Your task to perform on an android device: stop showing notifications on the lock screen Image 0: 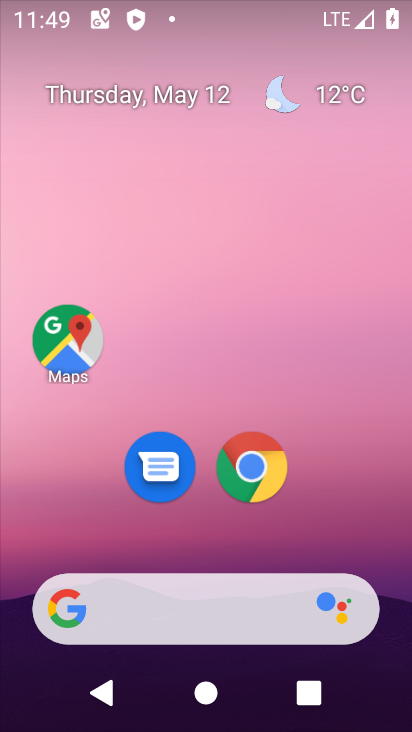
Step 0: drag from (323, 364) to (278, 5)
Your task to perform on an android device: stop showing notifications on the lock screen Image 1: 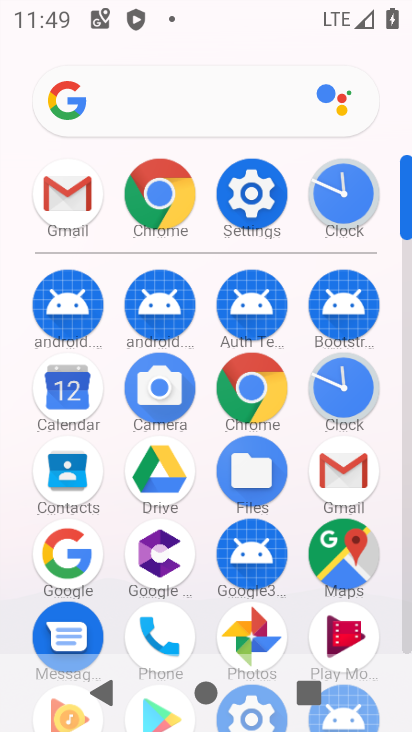
Step 1: drag from (15, 568) to (34, 308)
Your task to perform on an android device: stop showing notifications on the lock screen Image 2: 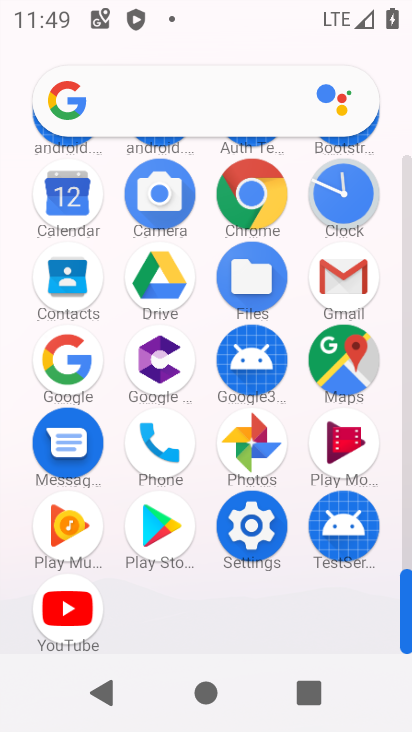
Step 2: click (251, 521)
Your task to perform on an android device: stop showing notifications on the lock screen Image 3: 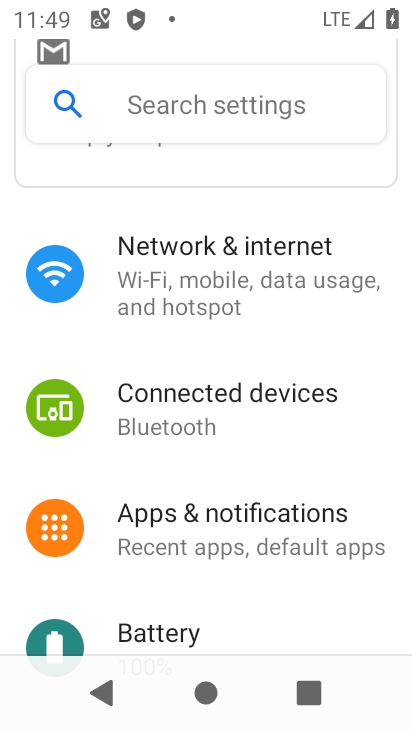
Step 3: drag from (249, 502) to (286, 231)
Your task to perform on an android device: stop showing notifications on the lock screen Image 4: 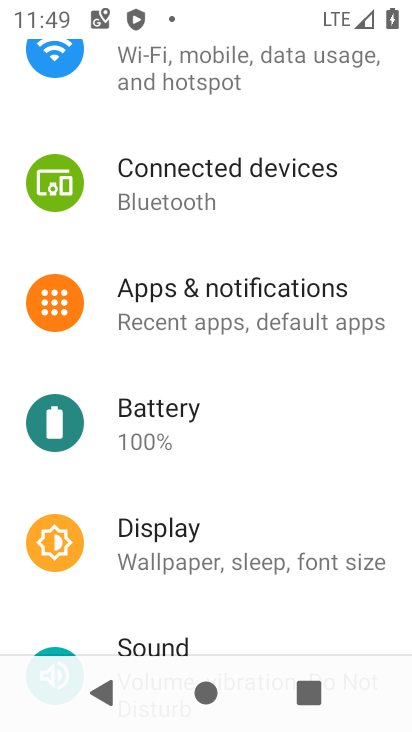
Step 4: drag from (237, 574) to (263, 208)
Your task to perform on an android device: stop showing notifications on the lock screen Image 5: 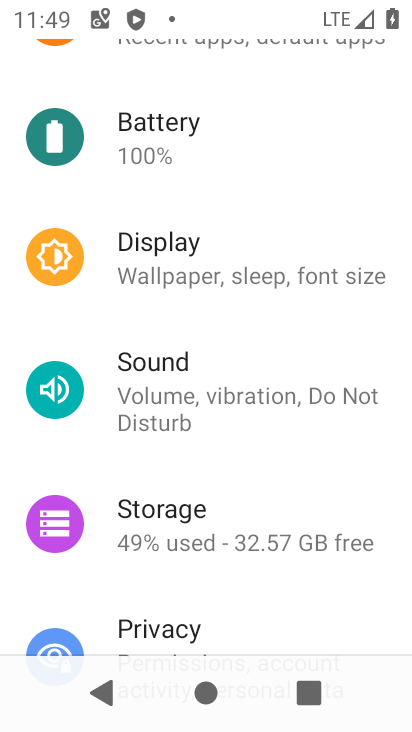
Step 5: drag from (264, 494) to (275, 252)
Your task to perform on an android device: stop showing notifications on the lock screen Image 6: 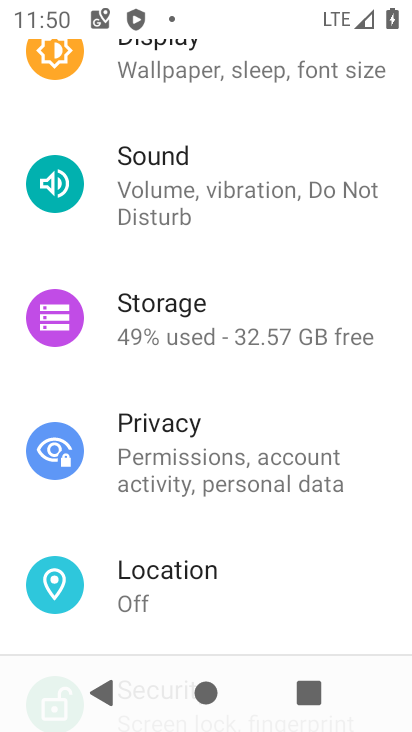
Step 6: drag from (257, 423) to (287, 220)
Your task to perform on an android device: stop showing notifications on the lock screen Image 7: 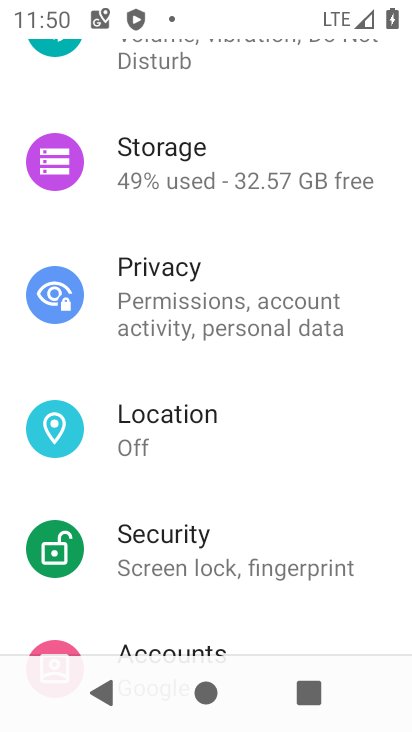
Step 7: drag from (211, 530) to (254, 172)
Your task to perform on an android device: stop showing notifications on the lock screen Image 8: 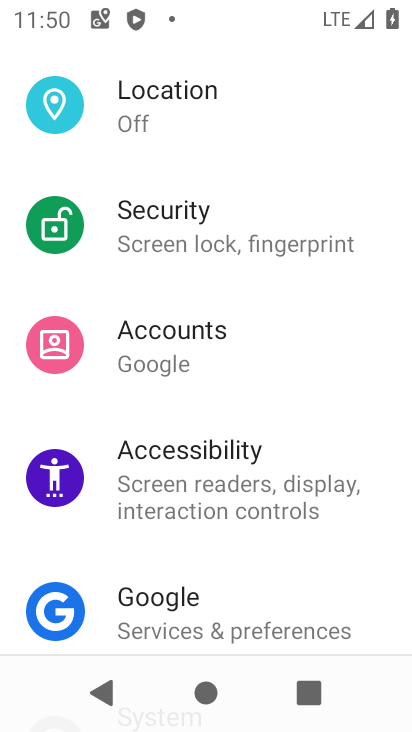
Step 8: drag from (215, 554) to (247, 258)
Your task to perform on an android device: stop showing notifications on the lock screen Image 9: 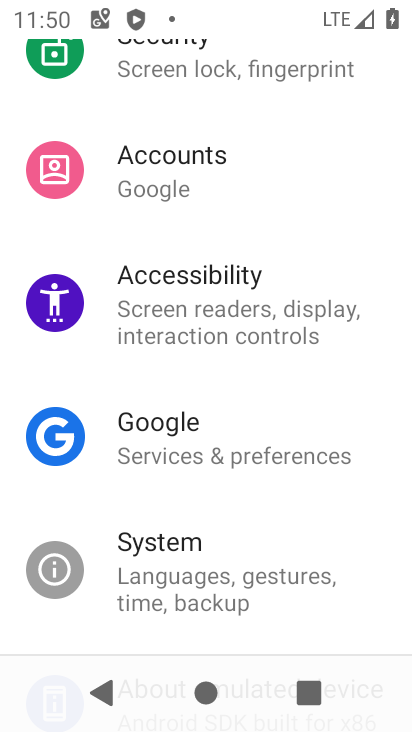
Step 9: drag from (228, 559) to (269, 224)
Your task to perform on an android device: stop showing notifications on the lock screen Image 10: 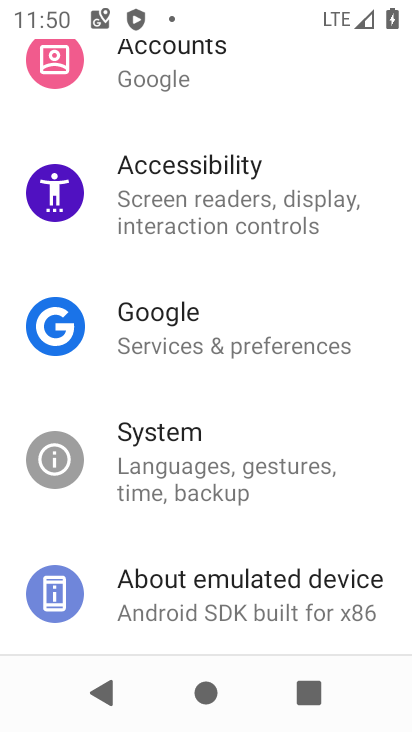
Step 10: drag from (257, 177) to (269, 430)
Your task to perform on an android device: stop showing notifications on the lock screen Image 11: 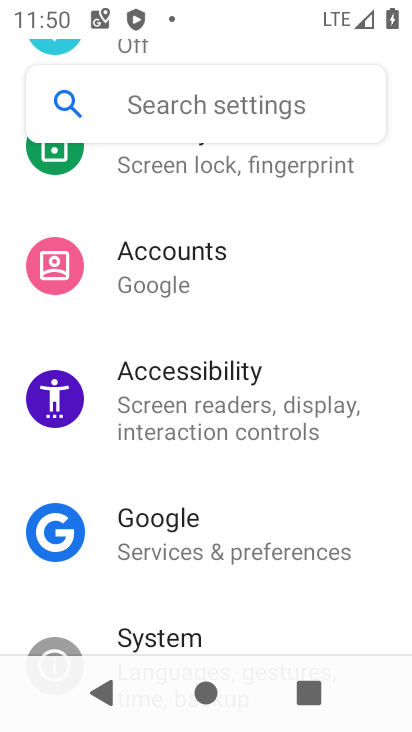
Step 11: drag from (246, 203) to (291, 532)
Your task to perform on an android device: stop showing notifications on the lock screen Image 12: 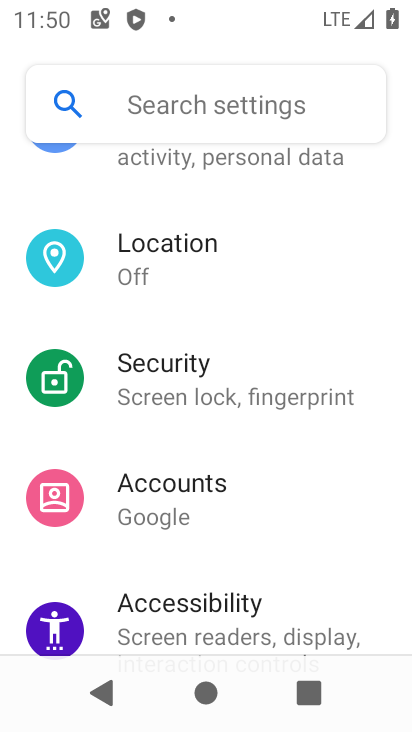
Step 12: drag from (301, 228) to (297, 548)
Your task to perform on an android device: stop showing notifications on the lock screen Image 13: 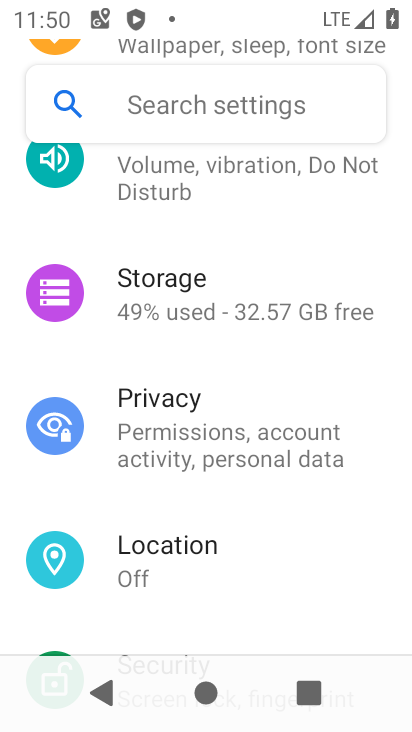
Step 13: drag from (285, 250) to (286, 578)
Your task to perform on an android device: stop showing notifications on the lock screen Image 14: 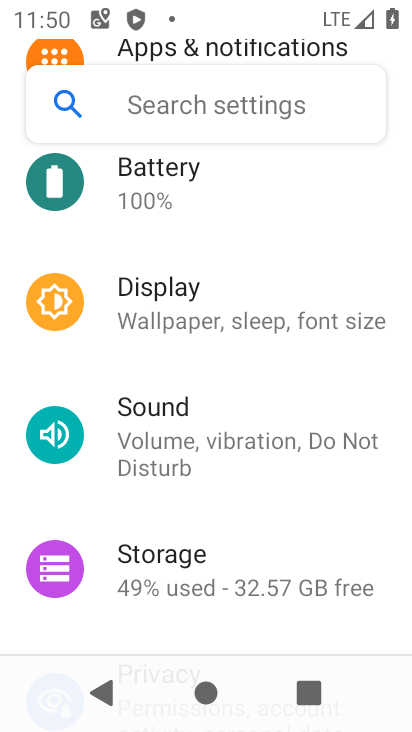
Step 14: drag from (233, 514) to (281, 175)
Your task to perform on an android device: stop showing notifications on the lock screen Image 15: 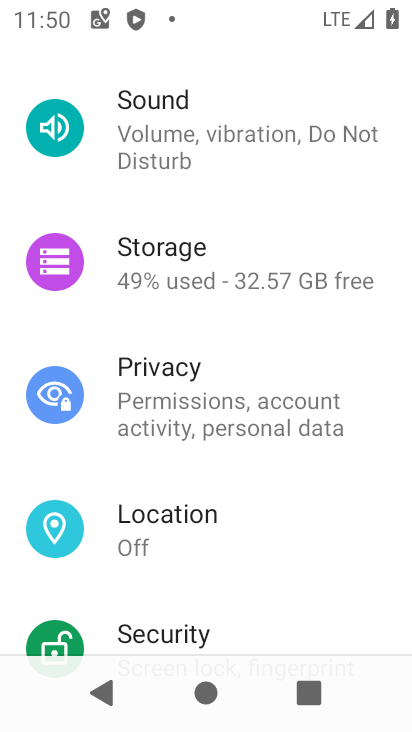
Step 15: drag from (295, 541) to (282, 241)
Your task to perform on an android device: stop showing notifications on the lock screen Image 16: 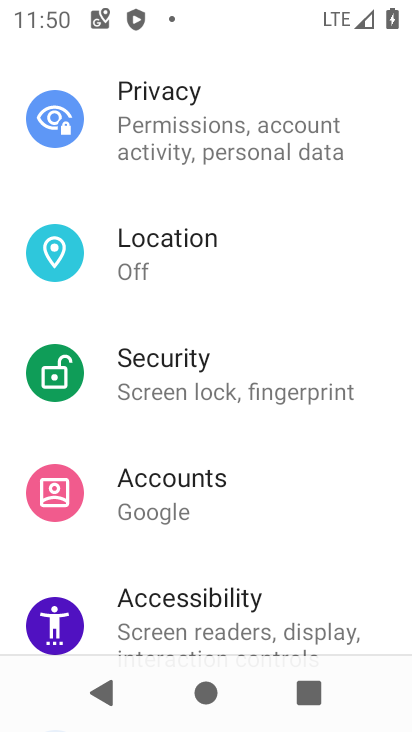
Step 16: drag from (288, 136) to (274, 590)
Your task to perform on an android device: stop showing notifications on the lock screen Image 17: 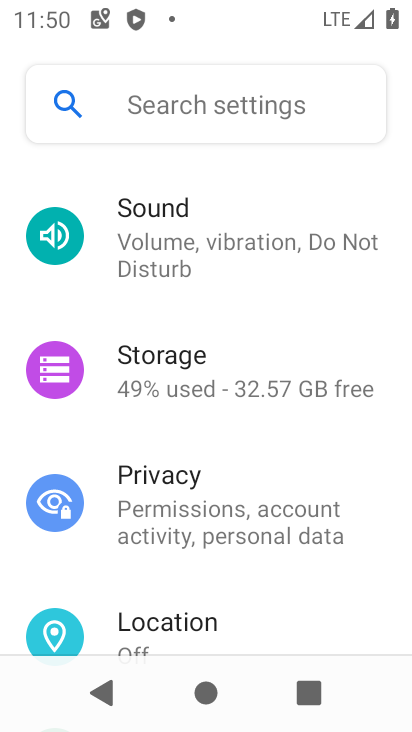
Step 17: drag from (294, 236) to (293, 580)
Your task to perform on an android device: stop showing notifications on the lock screen Image 18: 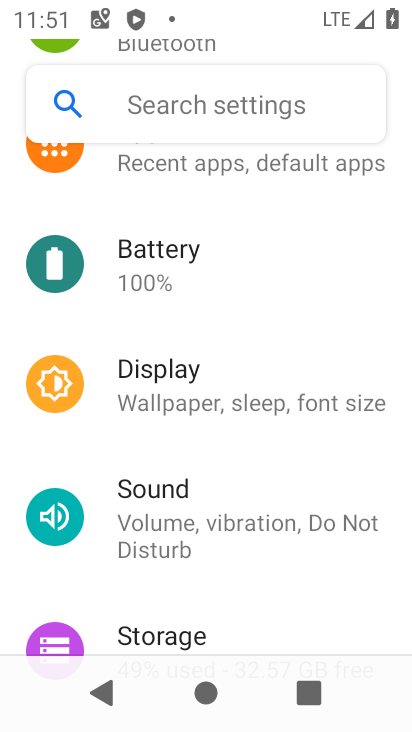
Step 18: drag from (270, 204) to (274, 555)
Your task to perform on an android device: stop showing notifications on the lock screen Image 19: 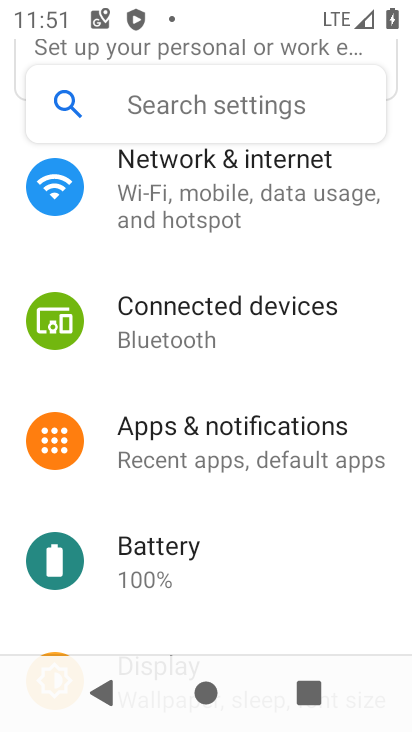
Step 19: click (220, 424)
Your task to perform on an android device: stop showing notifications on the lock screen Image 20: 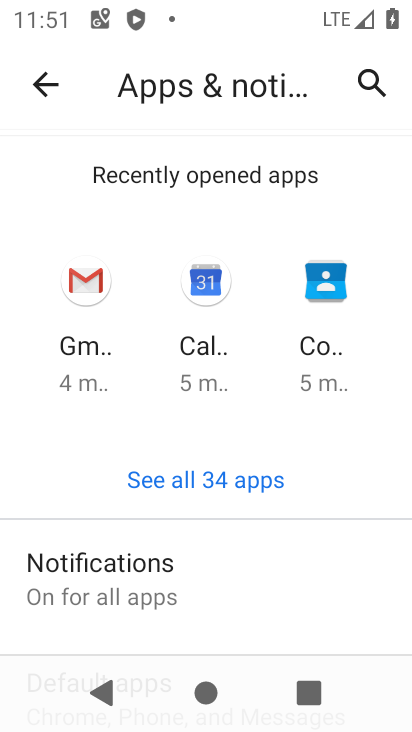
Step 20: drag from (250, 582) to (277, 164)
Your task to perform on an android device: stop showing notifications on the lock screen Image 21: 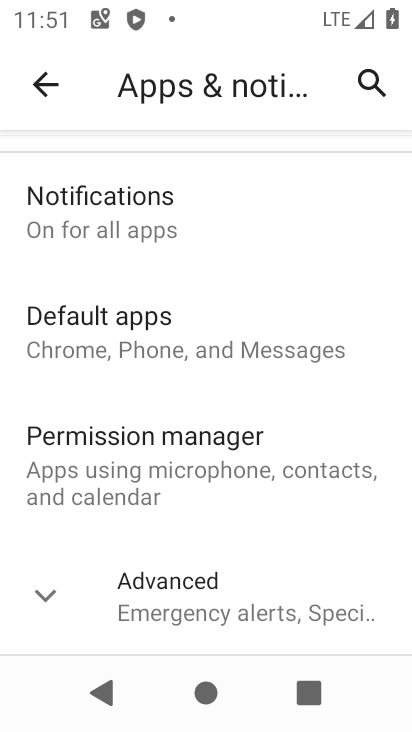
Step 21: click (131, 196)
Your task to perform on an android device: stop showing notifications on the lock screen Image 22: 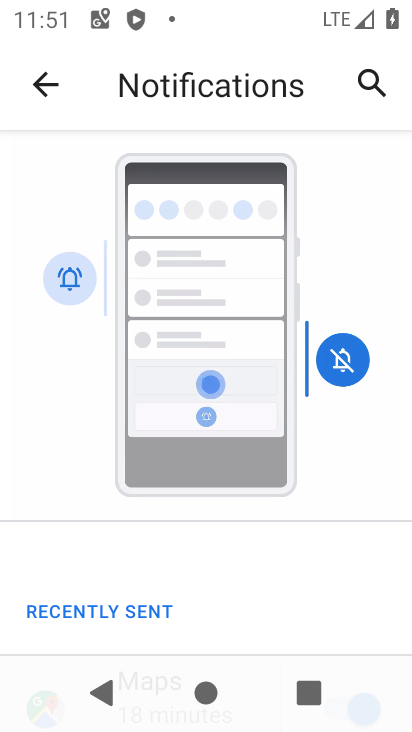
Step 22: drag from (260, 447) to (259, 142)
Your task to perform on an android device: stop showing notifications on the lock screen Image 23: 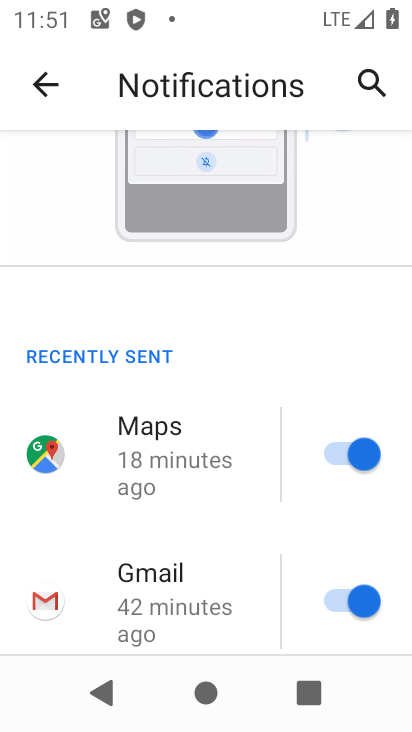
Step 23: drag from (184, 555) to (231, 162)
Your task to perform on an android device: stop showing notifications on the lock screen Image 24: 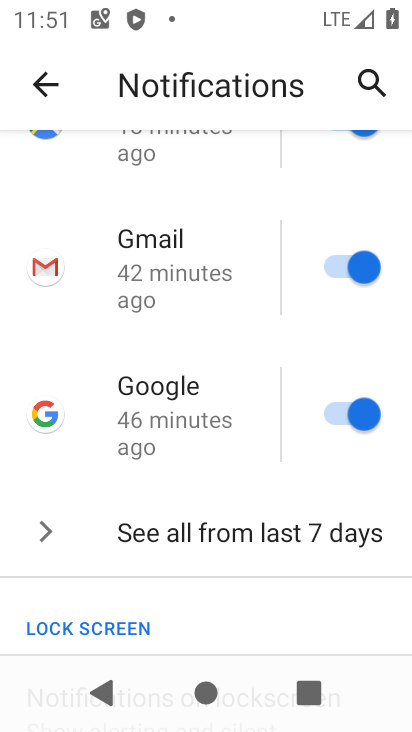
Step 24: drag from (186, 529) to (227, 187)
Your task to perform on an android device: stop showing notifications on the lock screen Image 25: 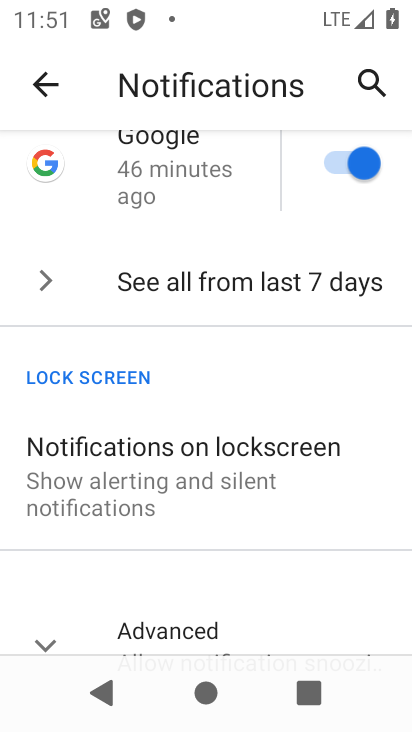
Step 25: drag from (189, 590) to (204, 269)
Your task to perform on an android device: stop showing notifications on the lock screen Image 26: 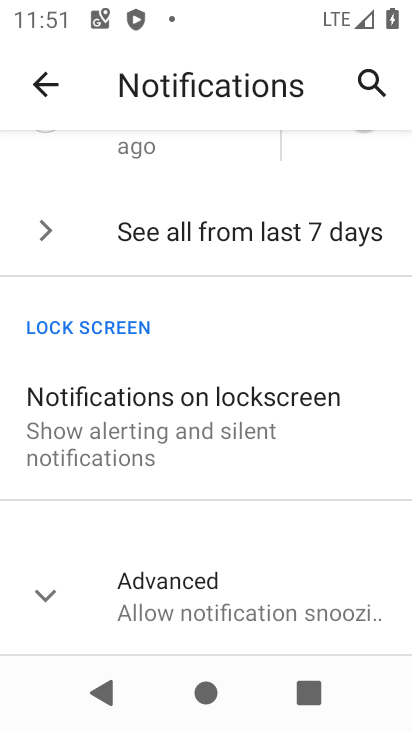
Step 26: click (178, 415)
Your task to perform on an android device: stop showing notifications on the lock screen Image 27: 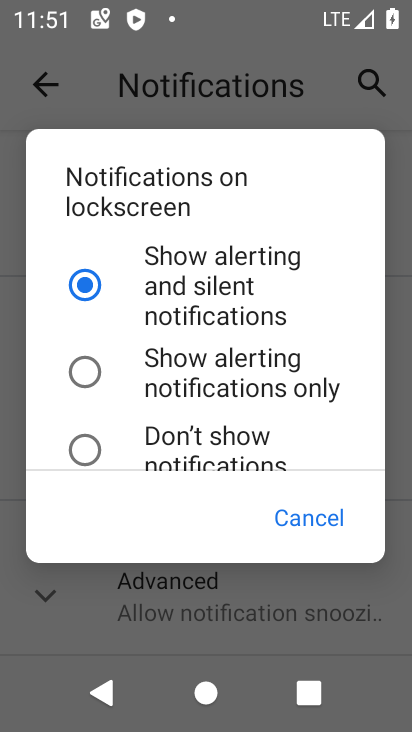
Step 27: click (200, 434)
Your task to perform on an android device: stop showing notifications on the lock screen Image 28: 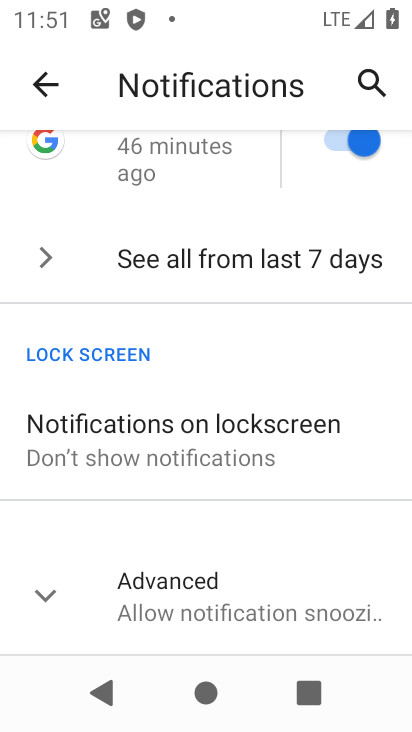
Step 28: click (47, 579)
Your task to perform on an android device: stop showing notifications on the lock screen Image 29: 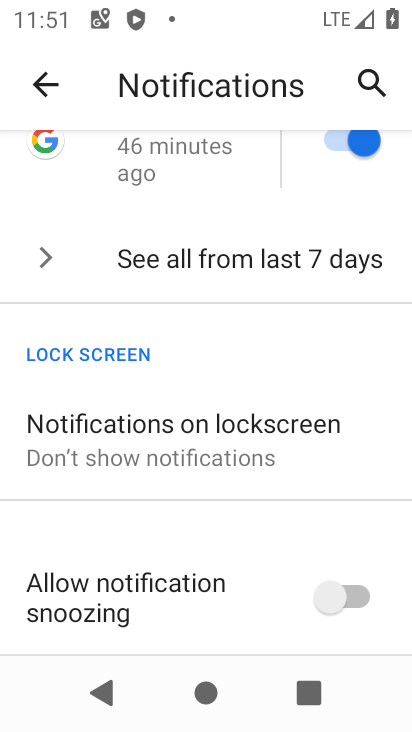
Step 29: task complete